Your task to perform on an android device: check storage Image 0: 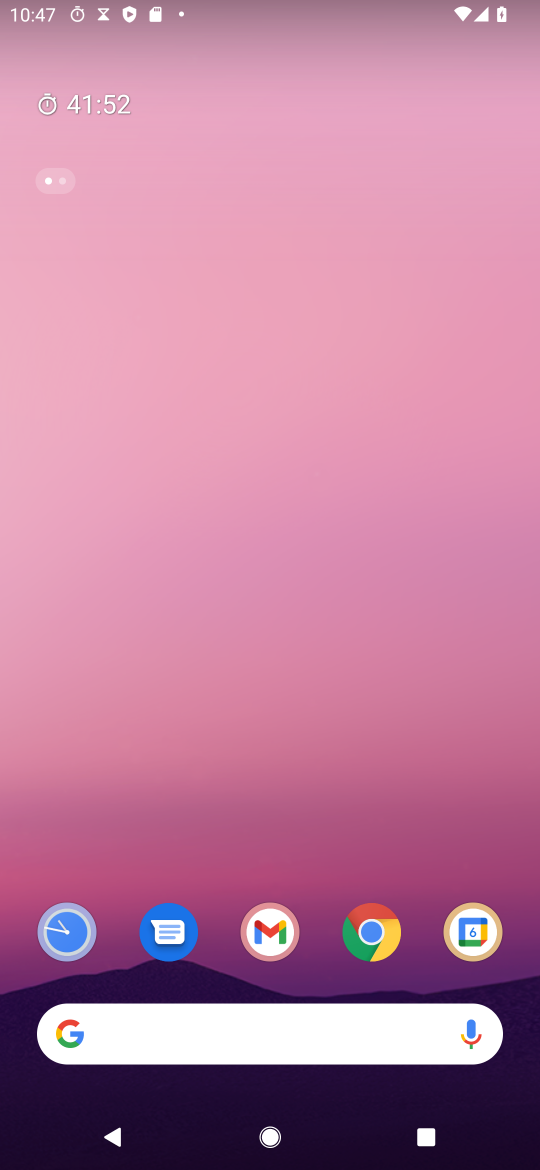
Step 0: drag from (340, 874) to (291, 32)
Your task to perform on an android device: check storage Image 1: 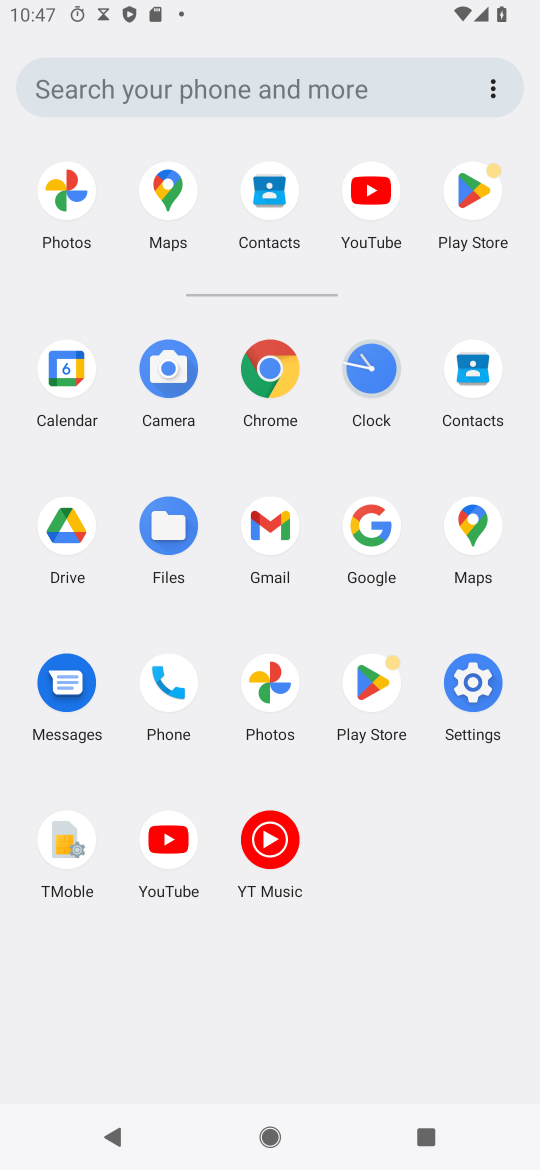
Step 1: click (479, 698)
Your task to perform on an android device: check storage Image 2: 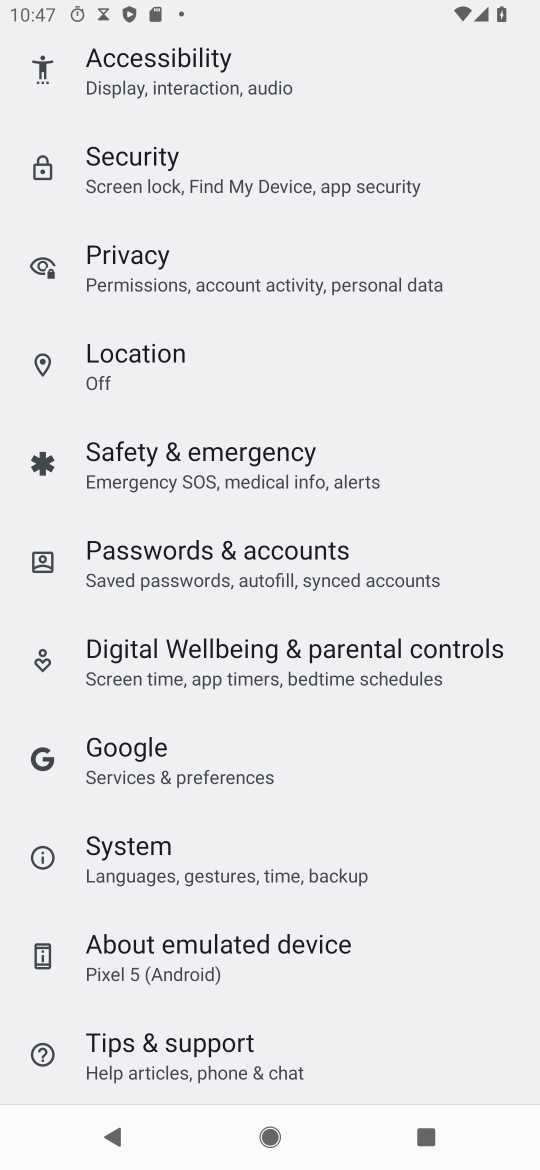
Step 2: drag from (349, 160) to (342, 935)
Your task to perform on an android device: check storage Image 3: 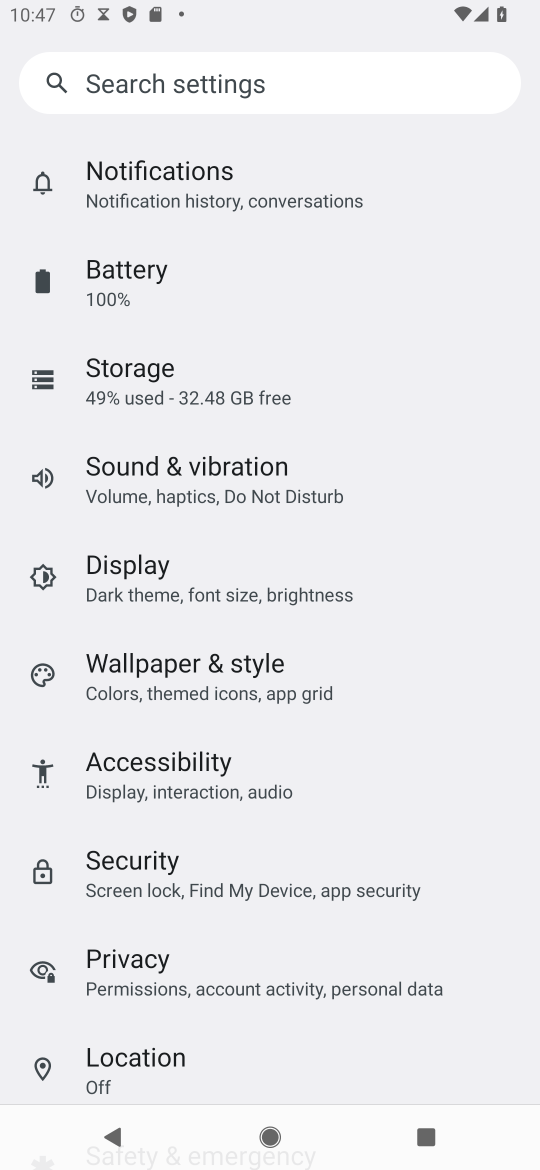
Step 3: click (230, 379)
Your task to perform on an android device: check storage Image 4: 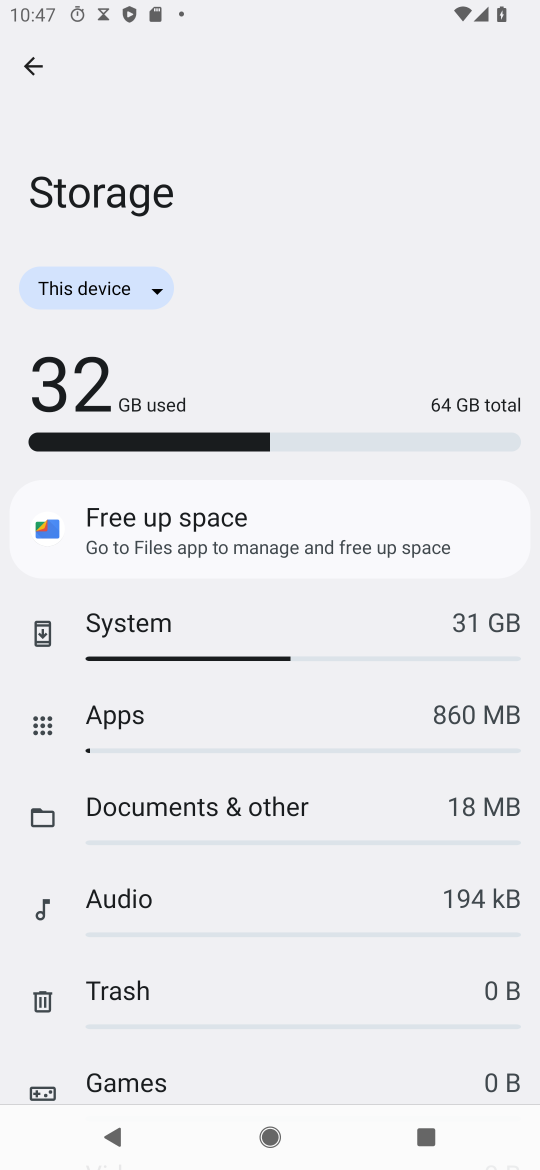
Step 4: task complete